Your task to perform on an android device: uninstall "Google Photos" Image 0: 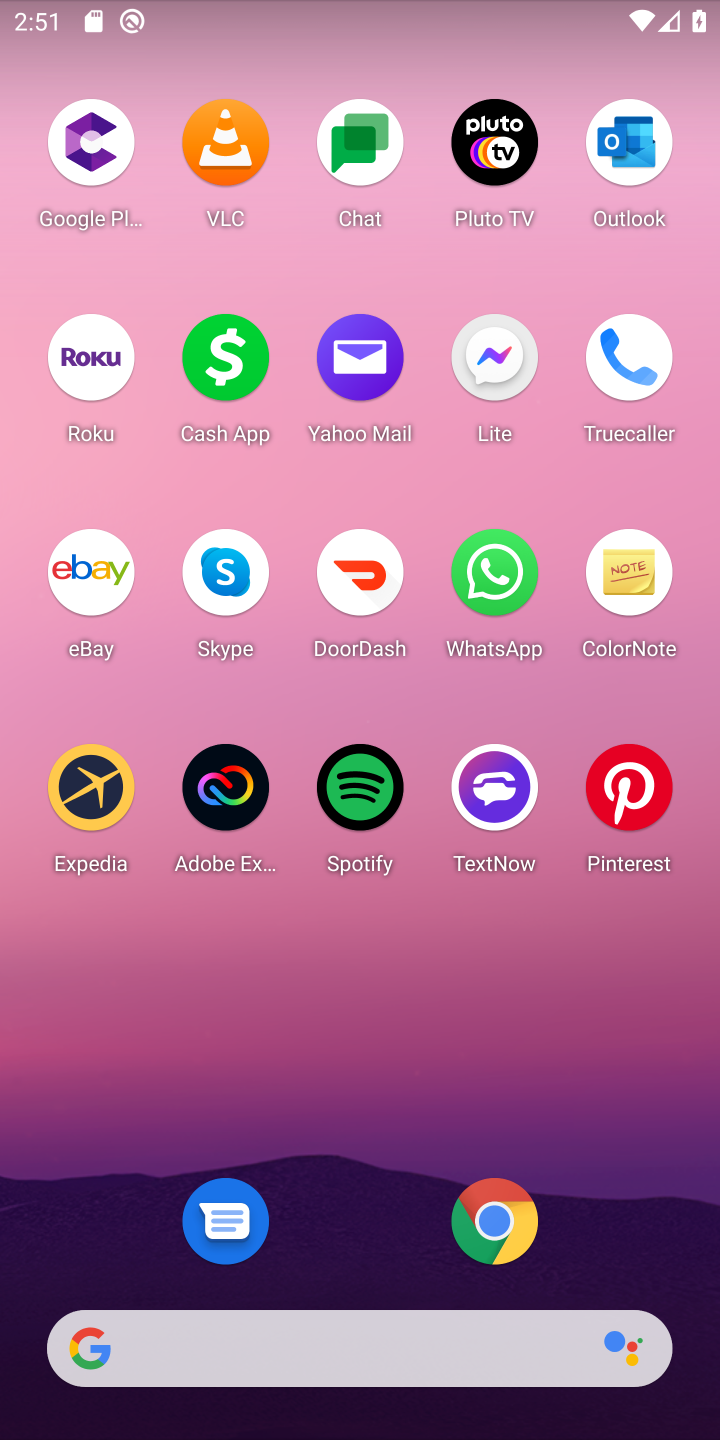
Step 0: drag from (364, 1121) to (415, 14)
Your task to perform on an android device: uninstall "Google Photos" Image 1: 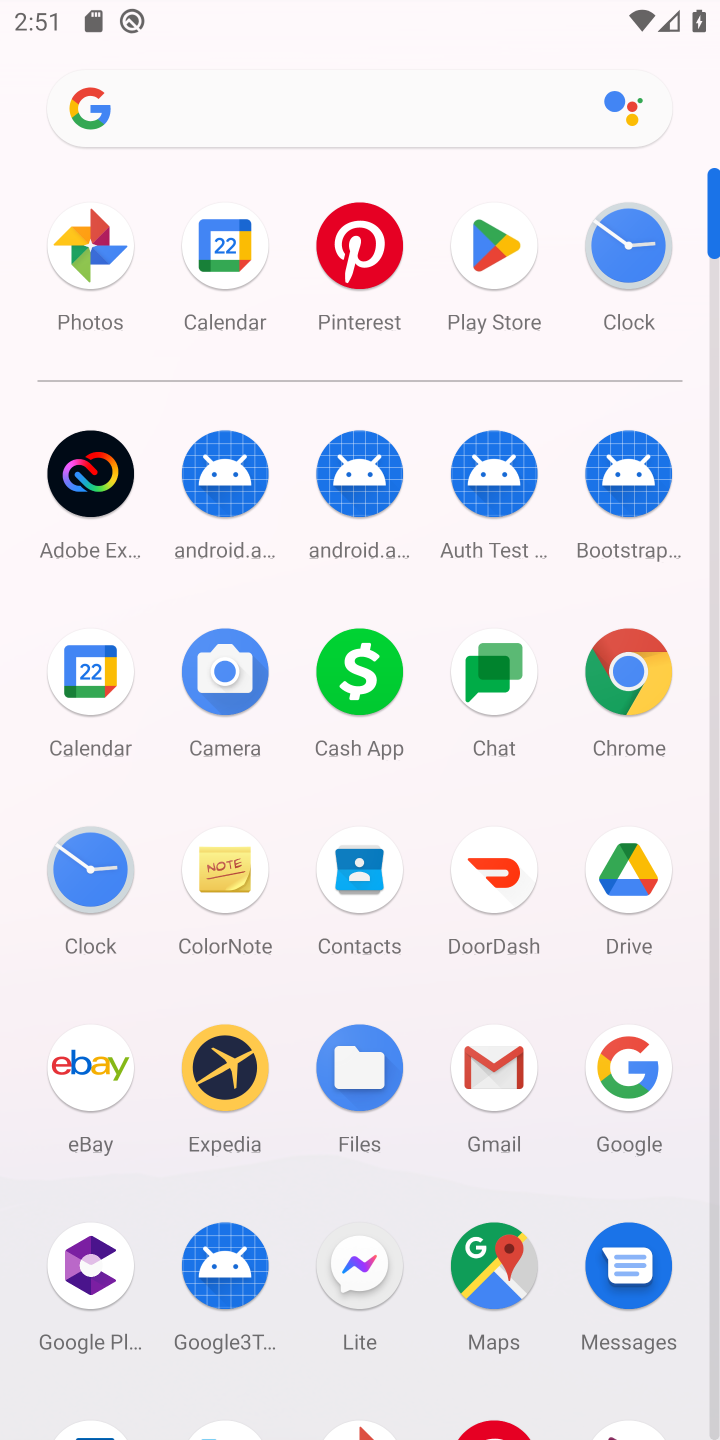
Step 1: click (497, 253)
Your task to perform on an android device: uninstall "Google Photos" Image 2: 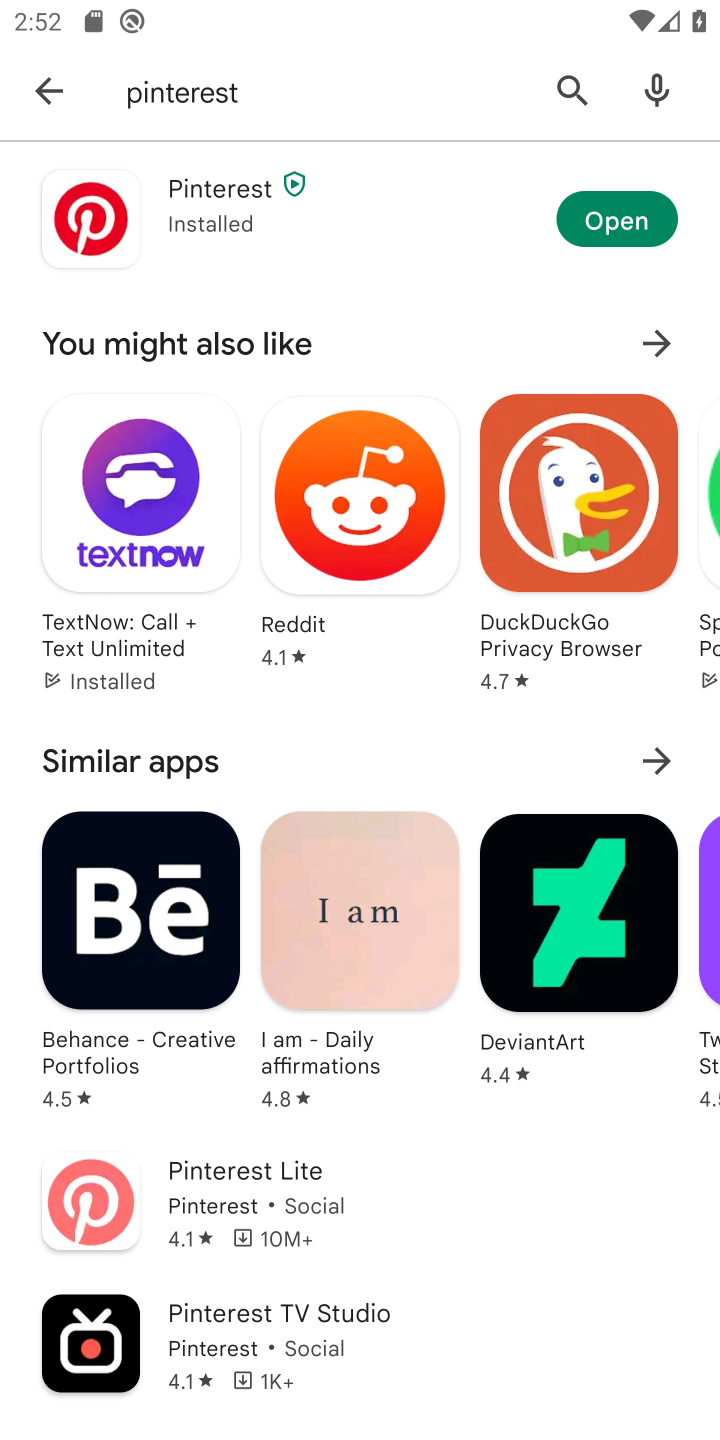
Step 2: click (561, 89)
Your task to perform on an android device: uninstall "Google Photos" Image 3: 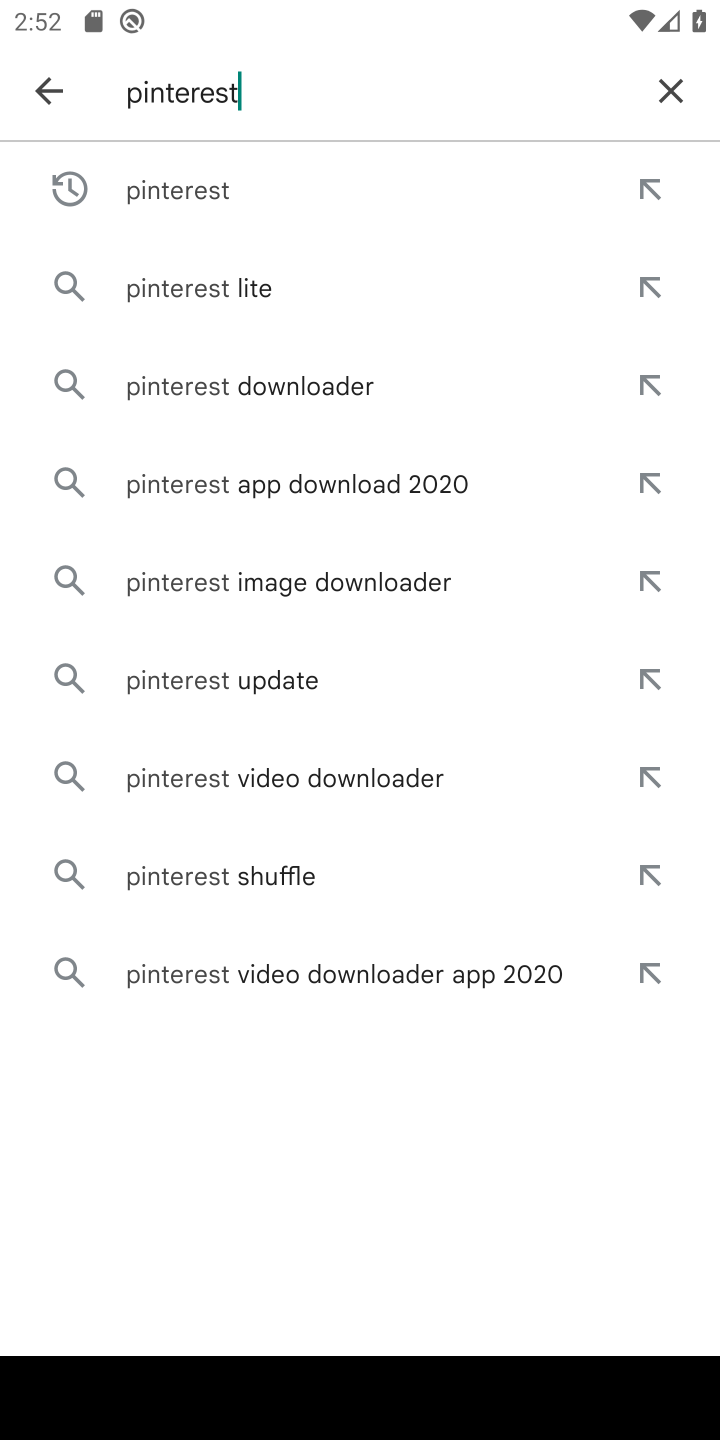
Step 3: click (660, 88)
Your task to perform on an android device: uninstall "Google Photos" Image 4: 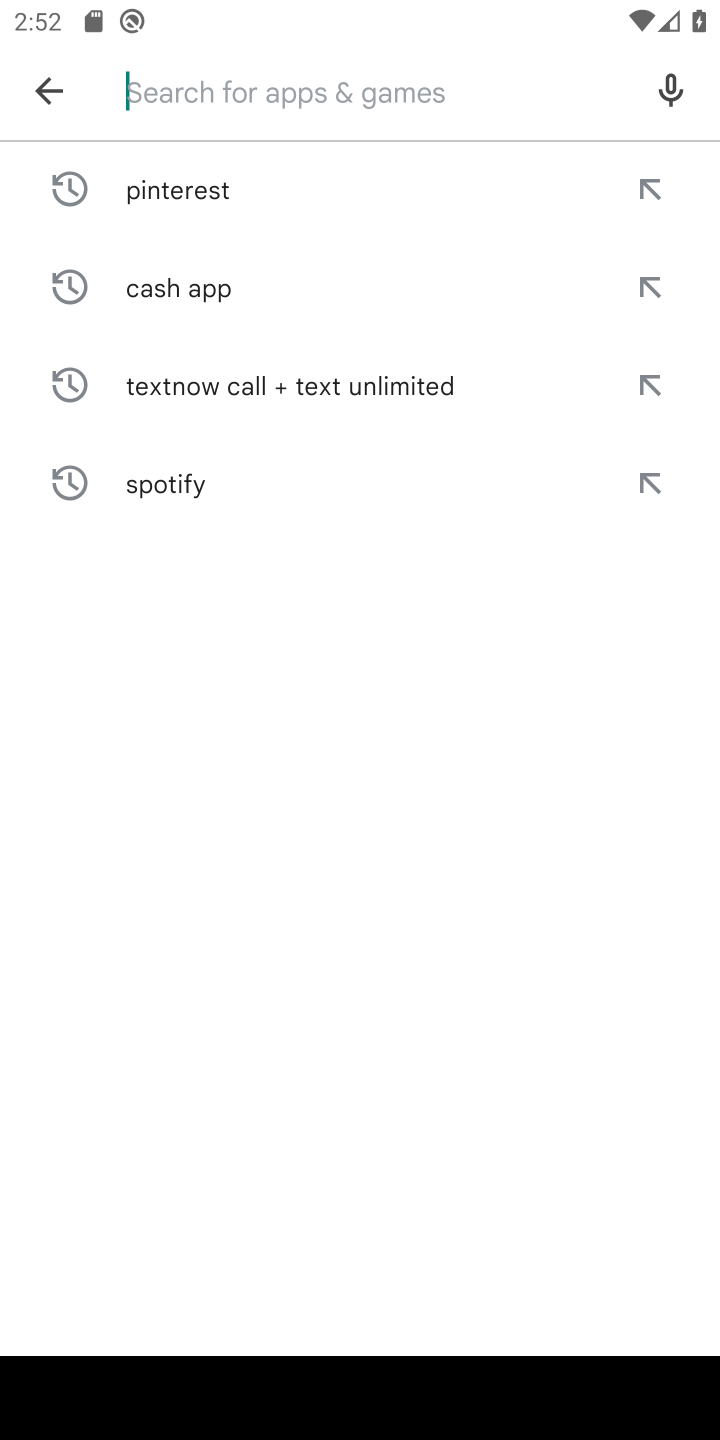
Step 4: type "Google Photos"
Your task to perform on an android device: uninstall "Google Photos" Image 5: 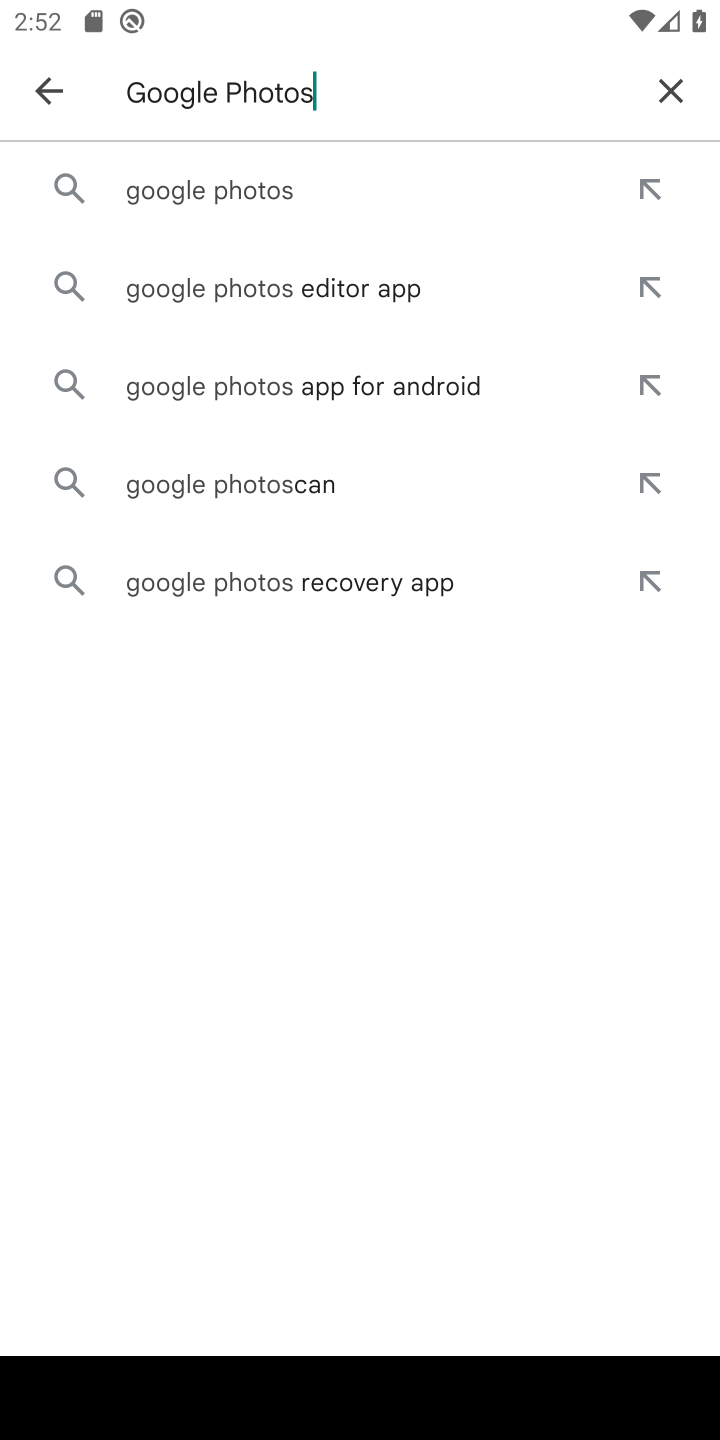
Step 5: click (193, 186)
Your task to perform on an android device: uninstall "Google Photos" Image 6: 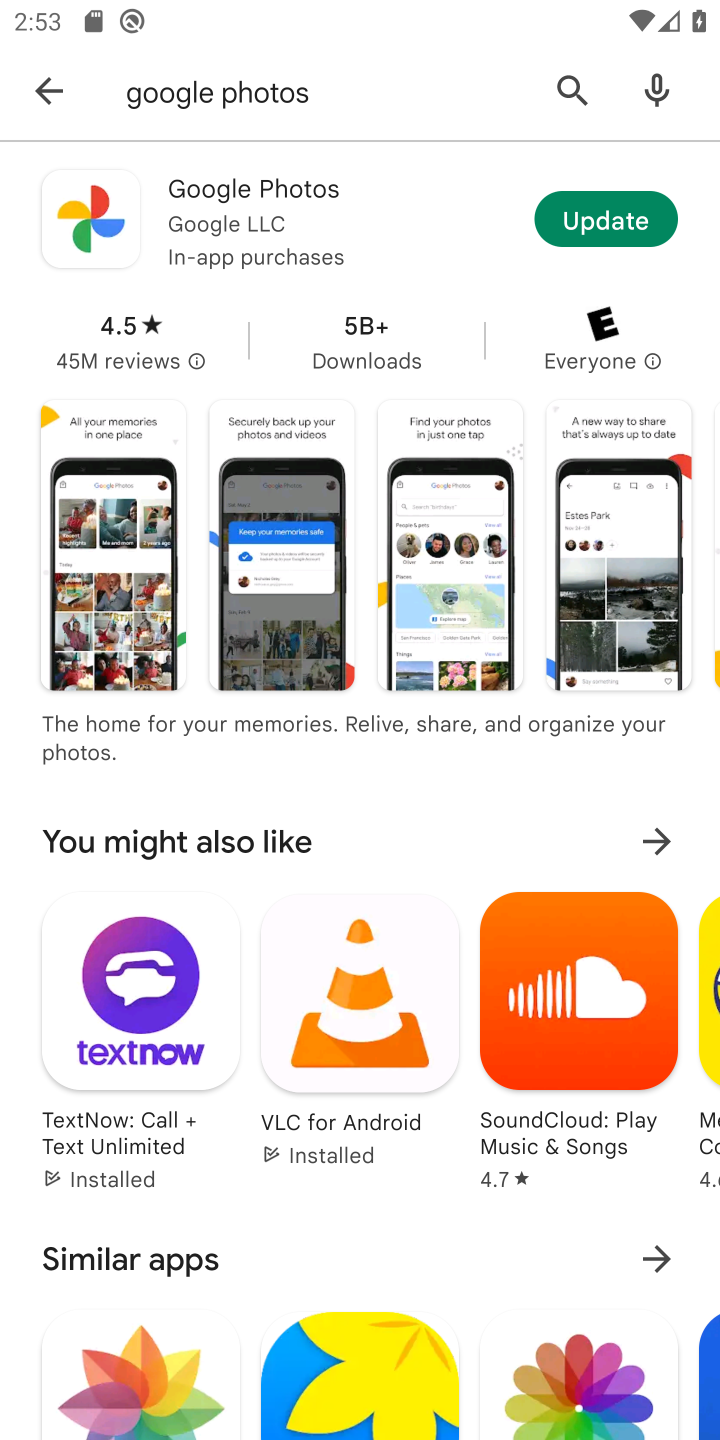
Step 6: click (315, 214)
Your task to perform on an android device: uninstall "Google Photos" Image 7: 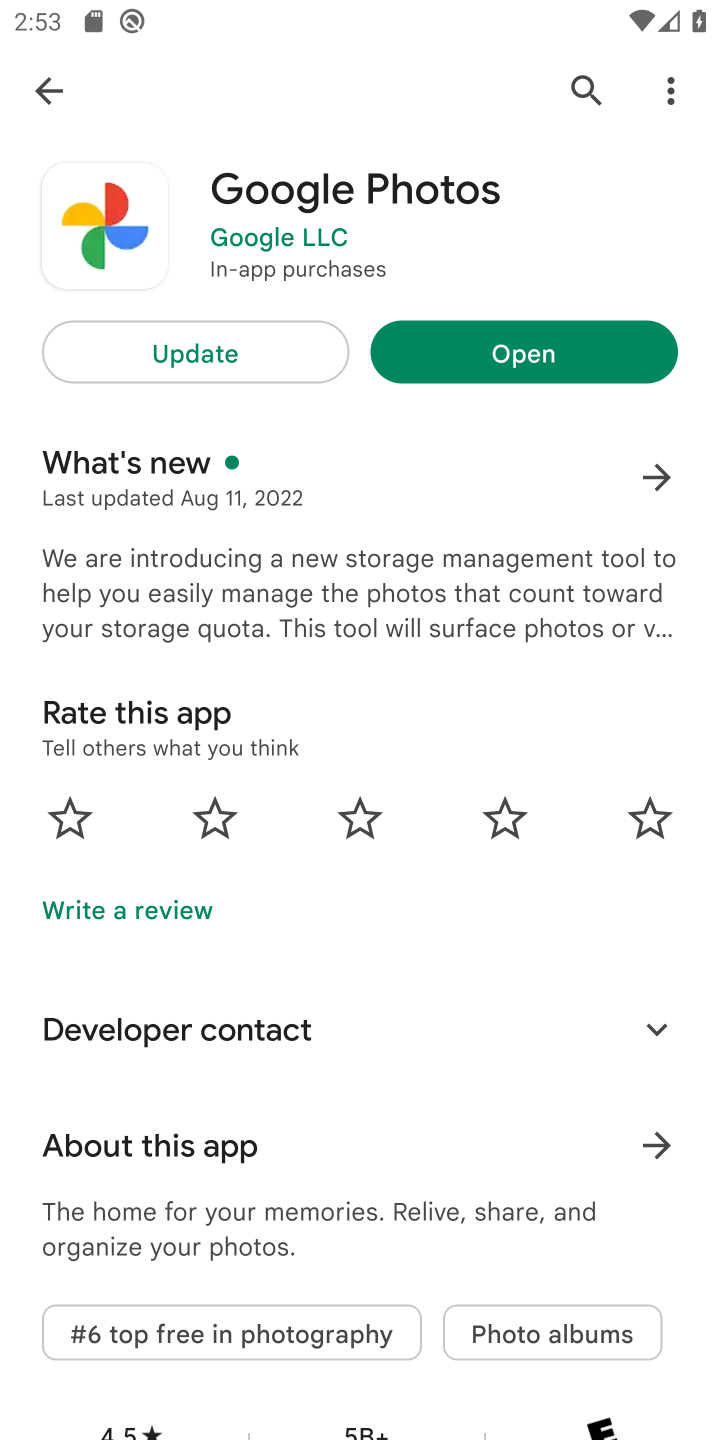
Step 7: click (196, 349)
Your task to perform on an android device: uninstall "Google Photos" Image 8: 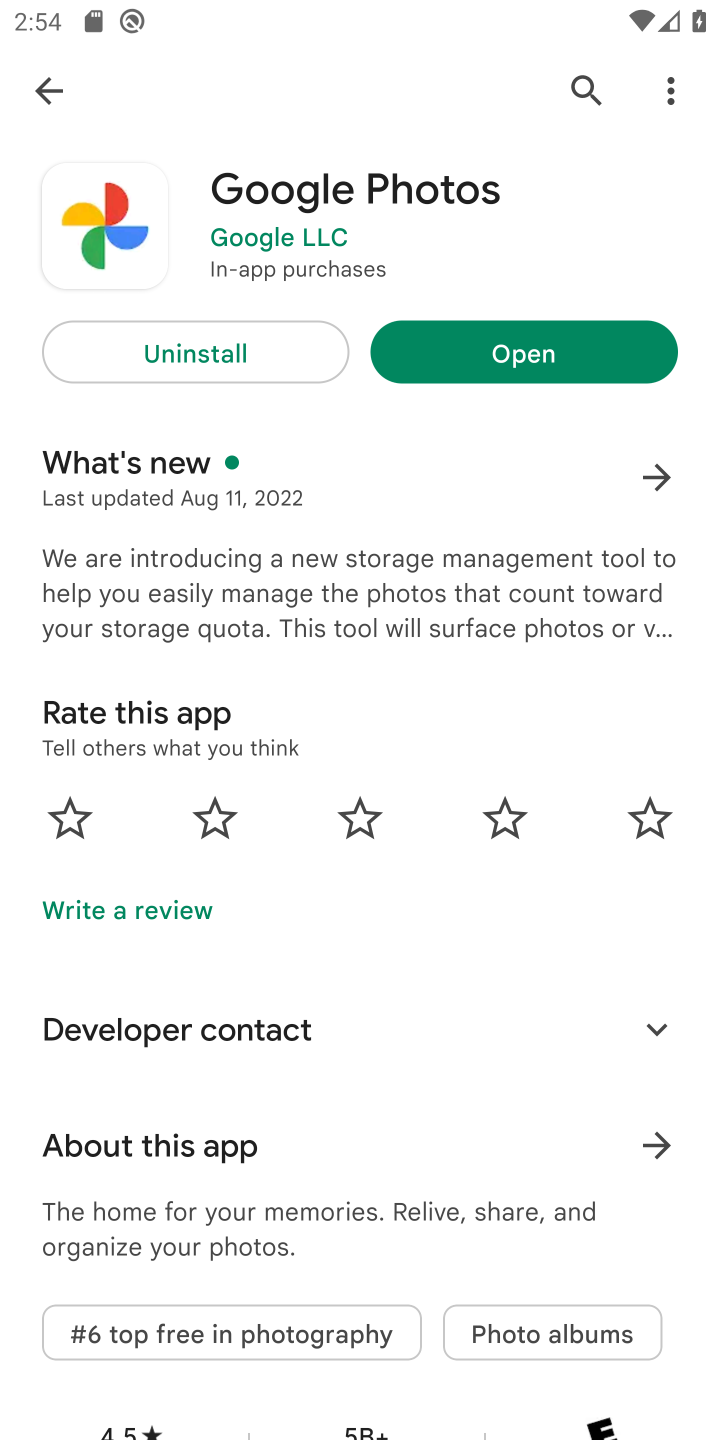
Step 8: click (201, 372)
Your task to perform on an android device: uninstall "Google Photos" Image 9: 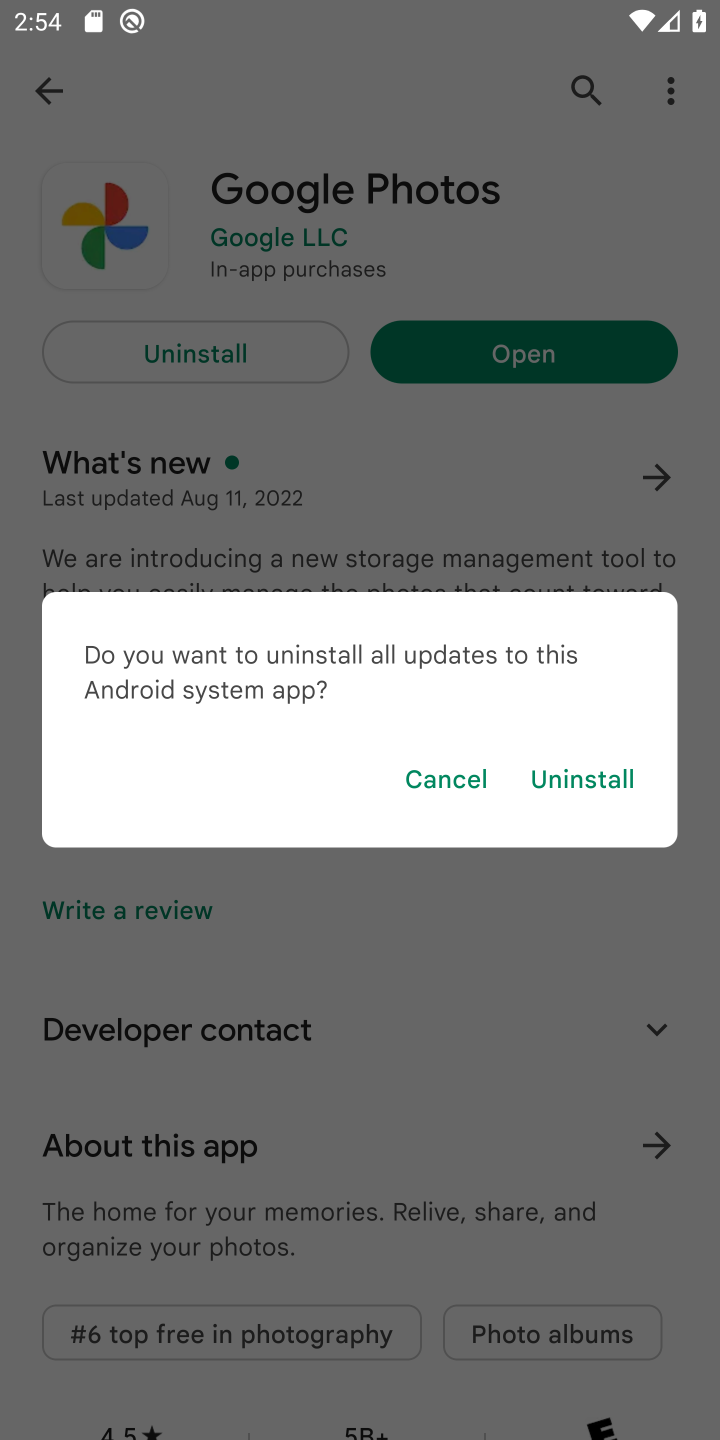
Step 9: click (643, 788)
Your task to perform on an android device: uninstall "Google Photos" Image 10: 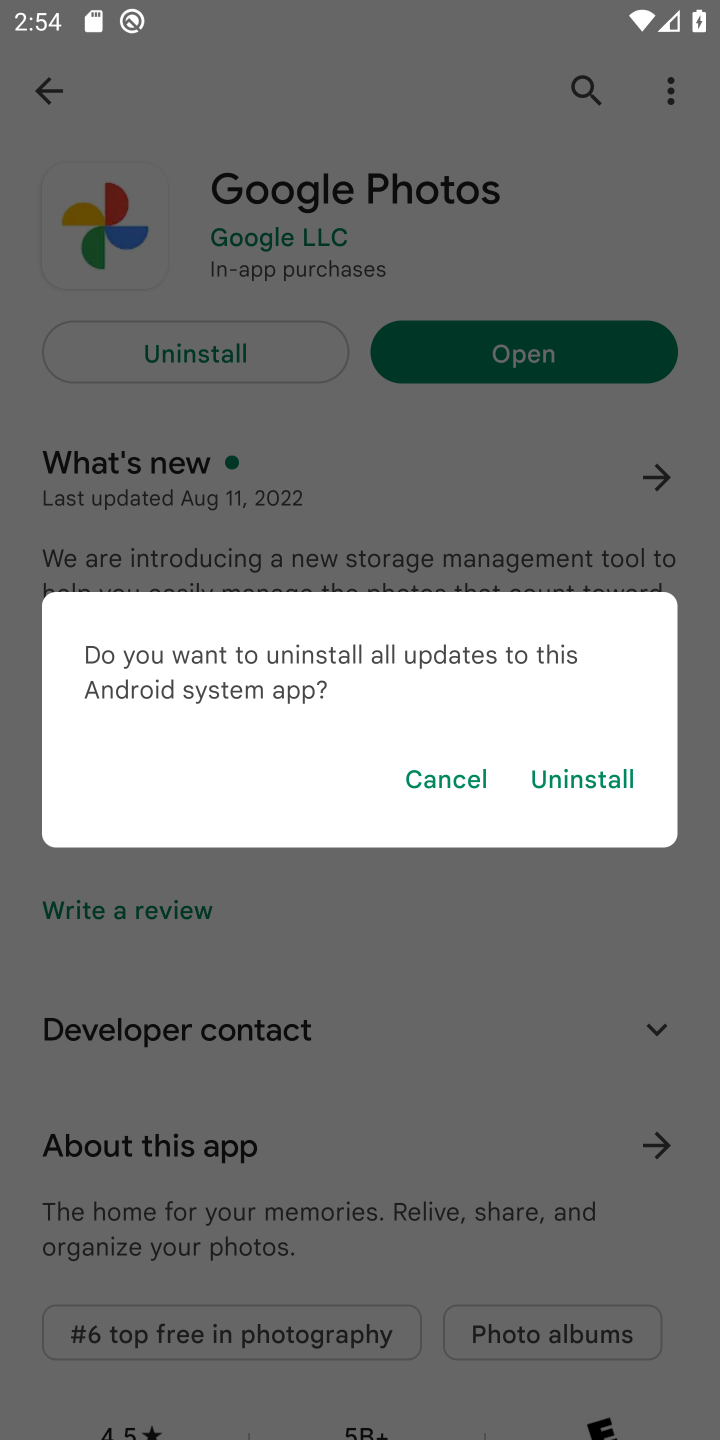
Step 10: click (590, 792)
Your task to perform on an android device: uninstall "Google Photos" Image 11: 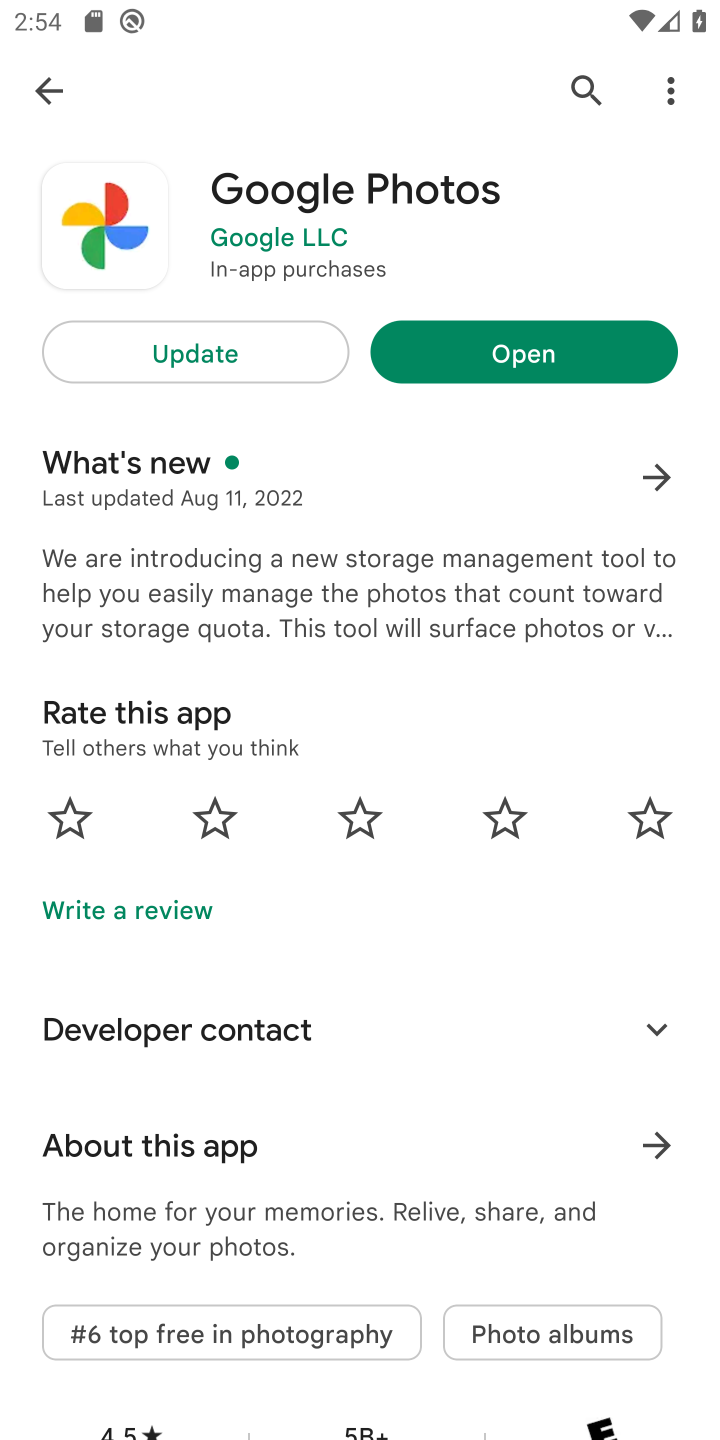
Step 11: task complete